Your task to perform on an android device: uninstall "DuckDuckGo Privacy Browser" Image 0: 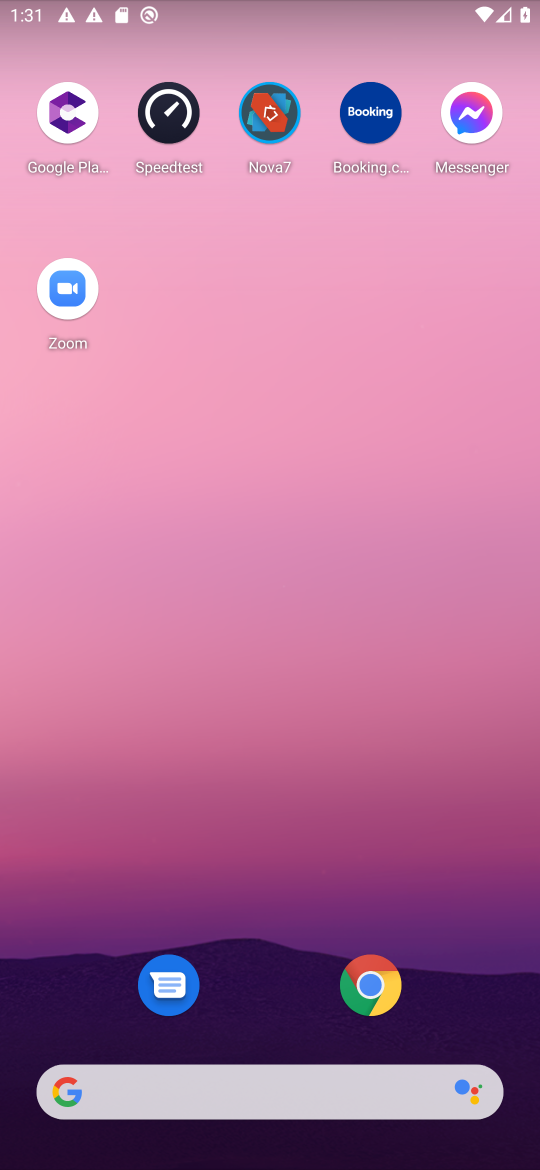
Step 0: drag from (299, 1169) to (275, 109)
Your task to perform on an android device: uninstall "DuckDuckGo Privacy Browser" Image 1: 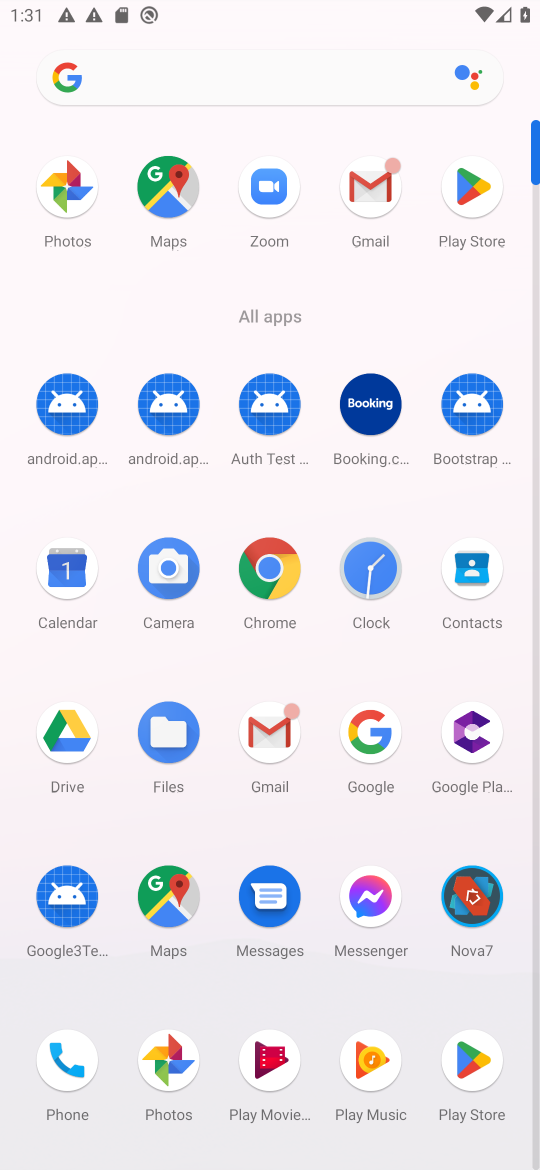
Step 1: click (465, 186)
Your task to perform on an android device: uninstall "DuckDuckGo Privacy Browser" Image 2: 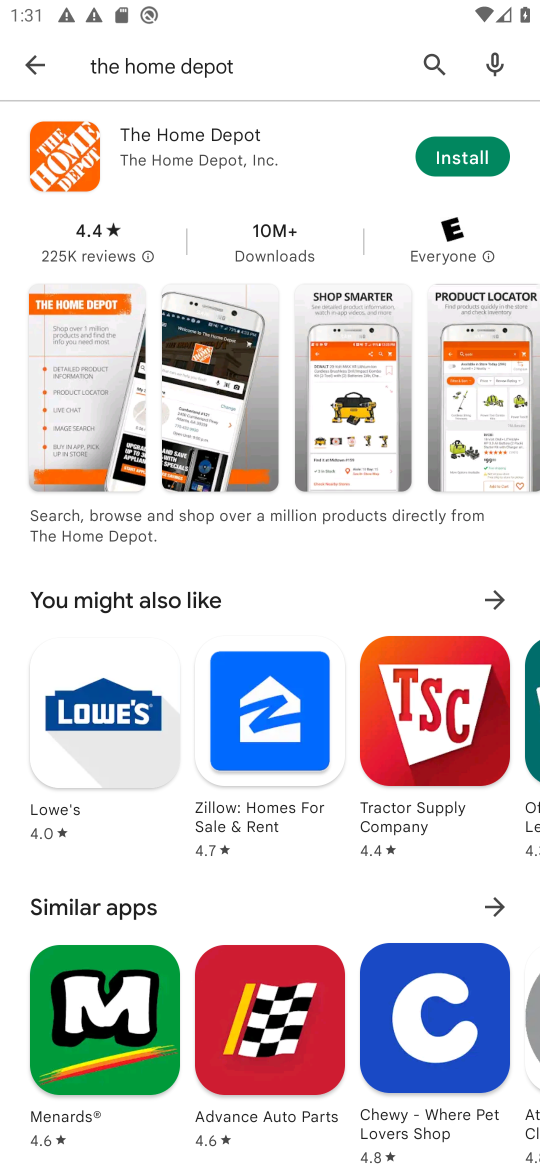
Step 2: click (430, 67)
Your task to perform on an android device: uninstall "DuckDuckGo Privacy Browser" Image 3: 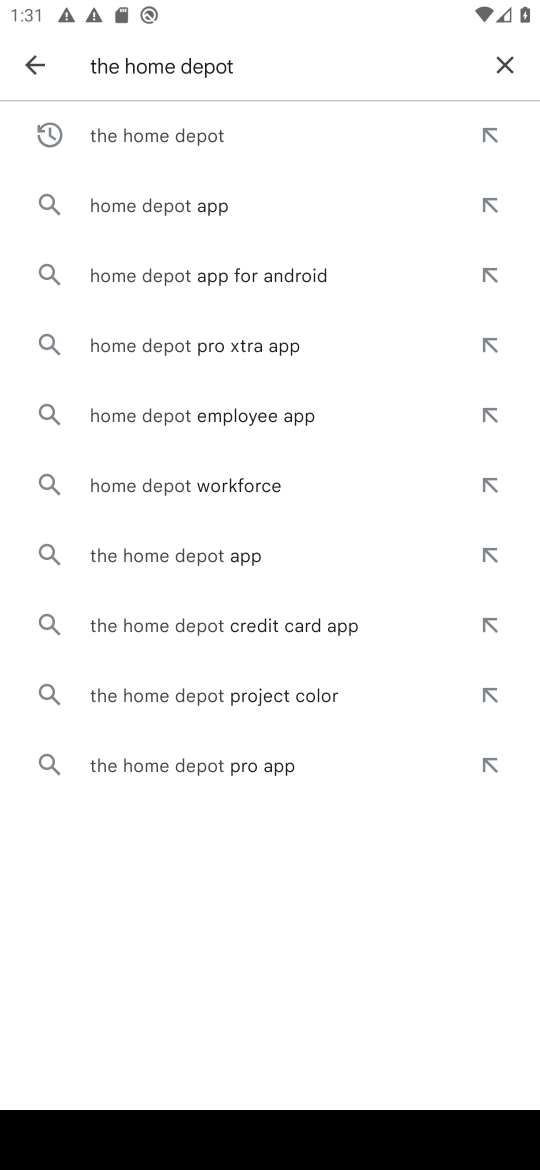
Step 3: click (508, 55)
Your task to perform on an android device: uninstall "DuckDuckGo Privacy Browser" Image 4: 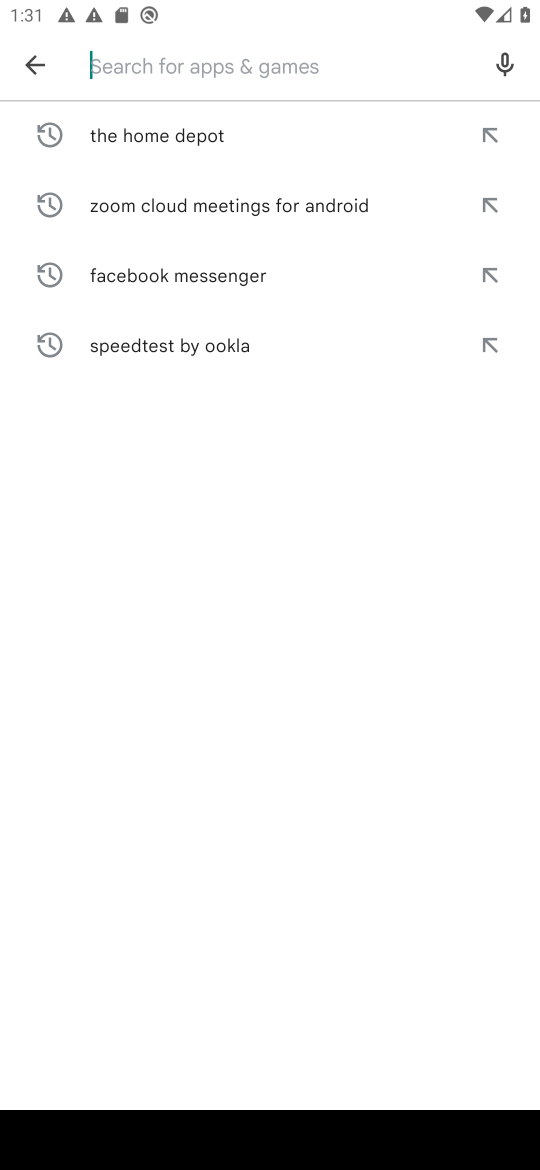
Step 4: type "DuckDuckGo Privacy Browser"
Your task to perform on an android device: uninstall "DuckDuckGo Privacy Browser" Image 5: 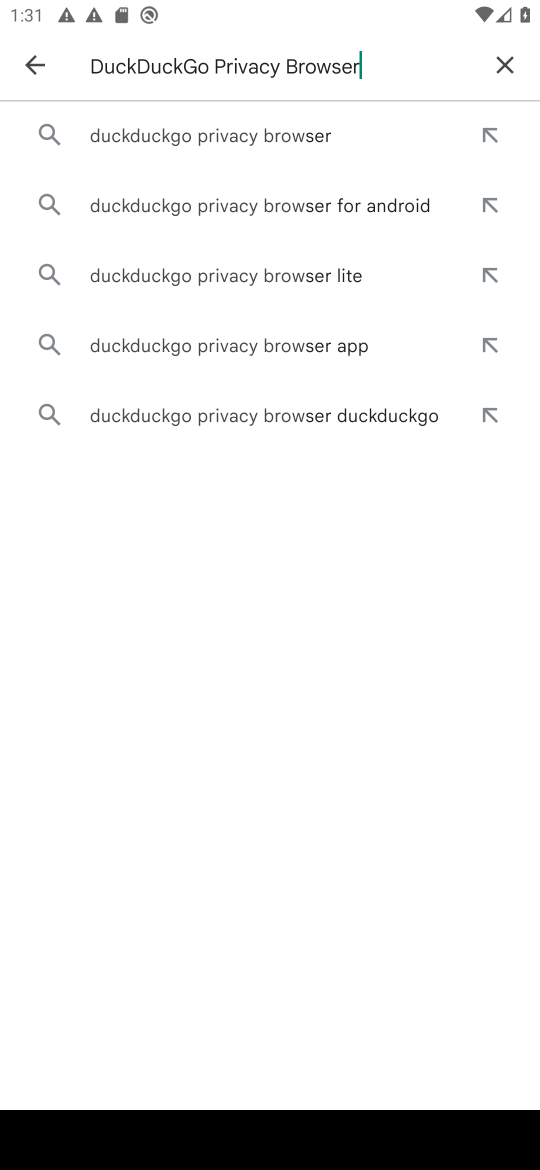
Step 5: type ""
Your task to perform on an android device: uninstall "DuckDuckGo Privacy Browser" Image 6: 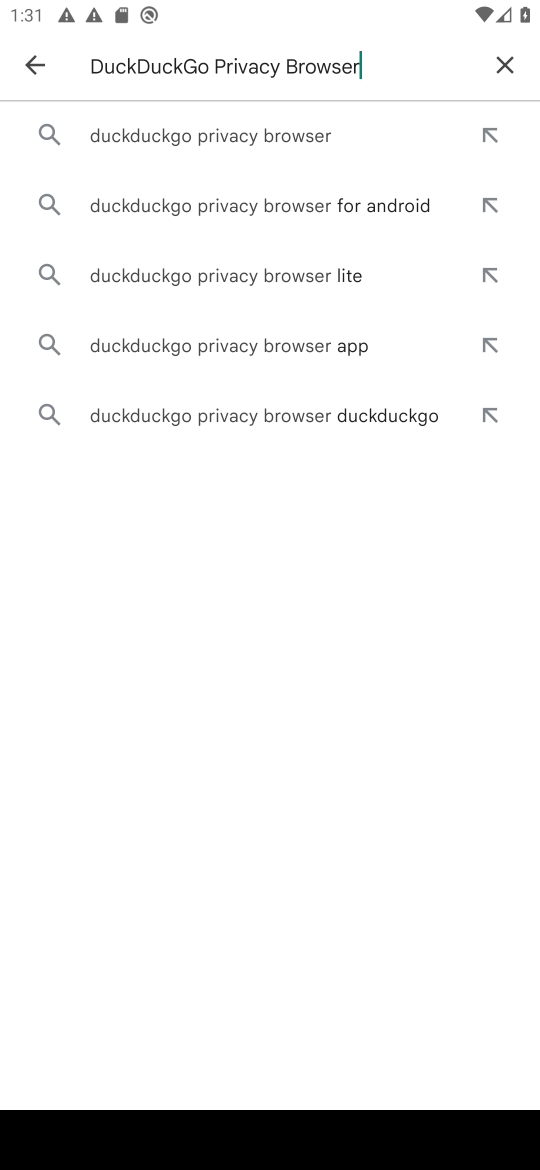
Step 6: click (213, 136)
Your task to perform on an android device: uninstall "DuckDuckGo Privacy Browser" Image 7: 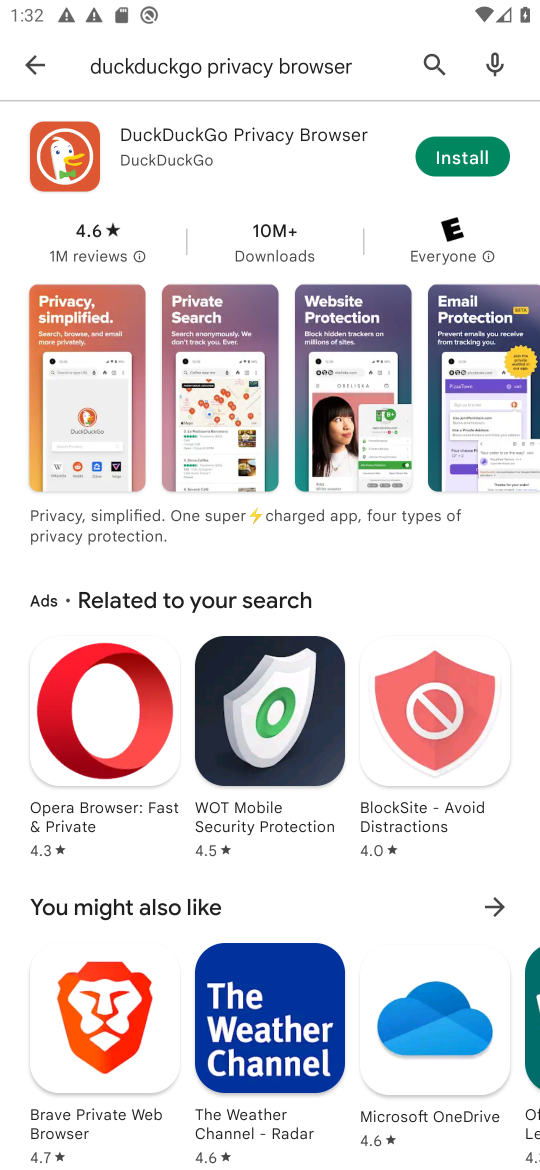
Step 7: click (236, 130)
Your task to perform on an android device: uninstall "DuckDuckGo Privacy Browser" Image 8: 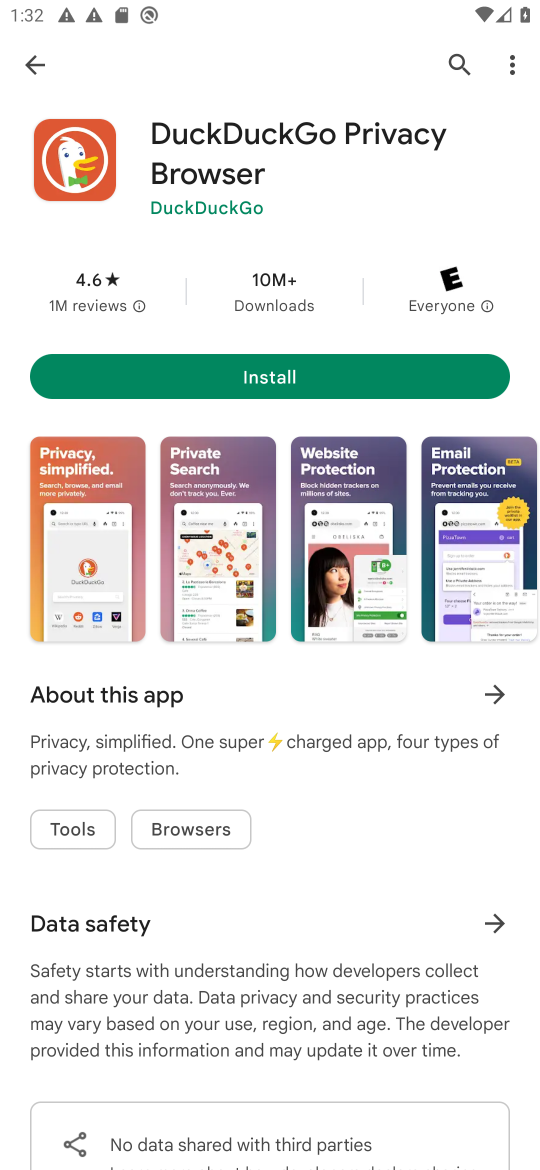
Step 8: task complete